Your task to perform on an android device: check the backup settings in the google photos Image 0: 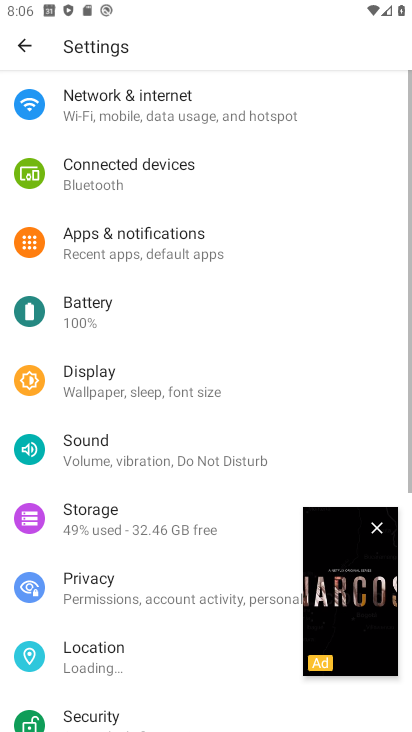
Step 0: click (379, 534)
Your task to perform on an android device: check the backup settings in the google photos Image 1: 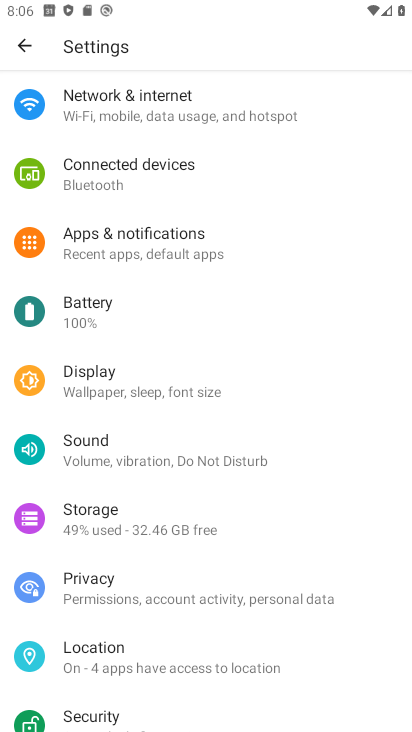
Step 1: press home button
Your task to perform on an android device: check the backup settings in the google photos Image 2: 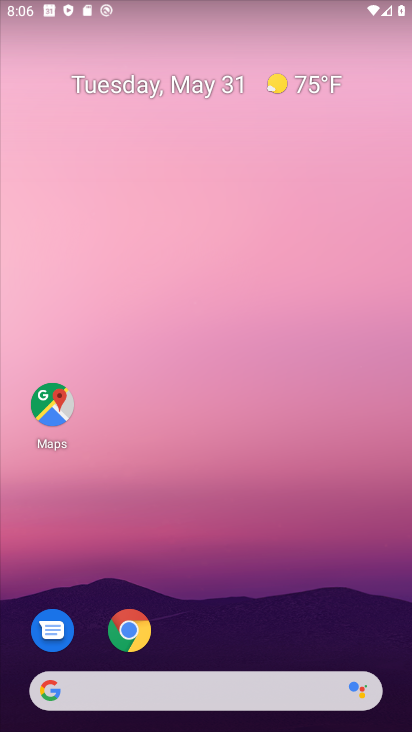
Step 2: drag from (188, 612) to (241, 193)
Your task to perform on an android device: check the backup settings in the google photos Image 3: 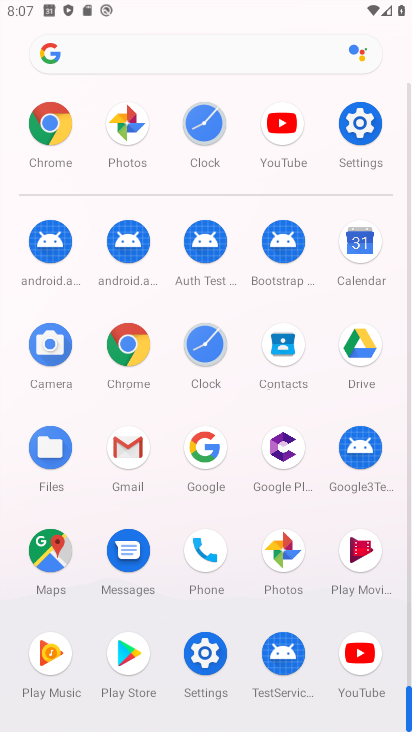
Step 3: click (292, 566)
Your task to perform on an android device: check the backup settings in the google photos Image 4: 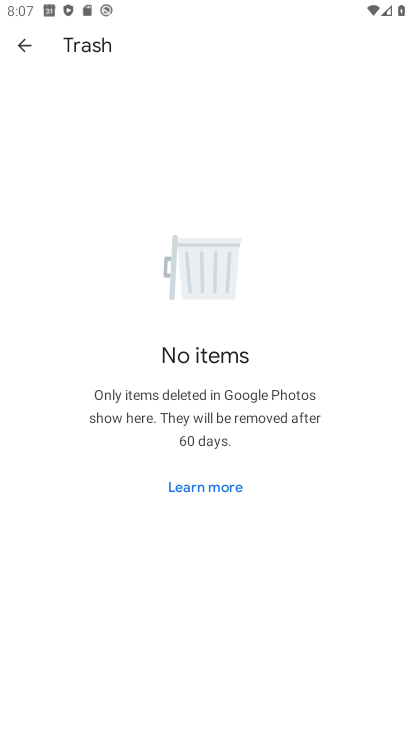
Step 4: click (27, 49)
Your task to perform on an android device: check the backup settings in the google photos Image 5: 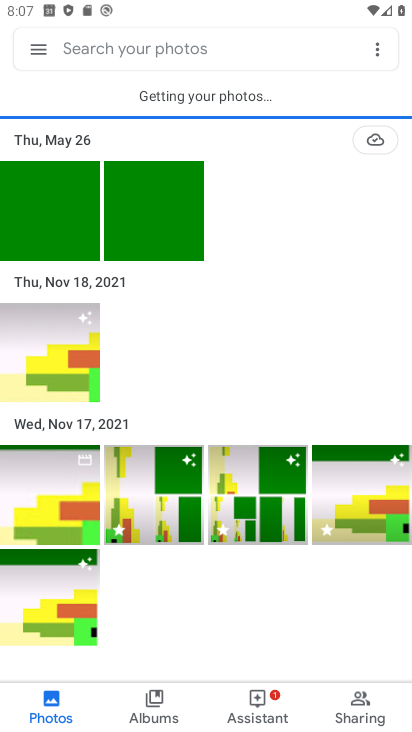
Step 5: click (30, 49)
Your task to perform on an android device: check the backup settings in the google photos Image 6: 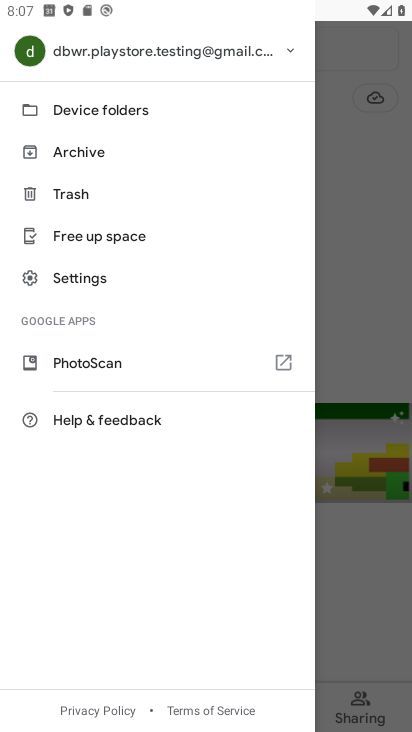
Step 6: click (83, 270)
Your task to perform on an android device: check the backup settings in the google photos Image 7: 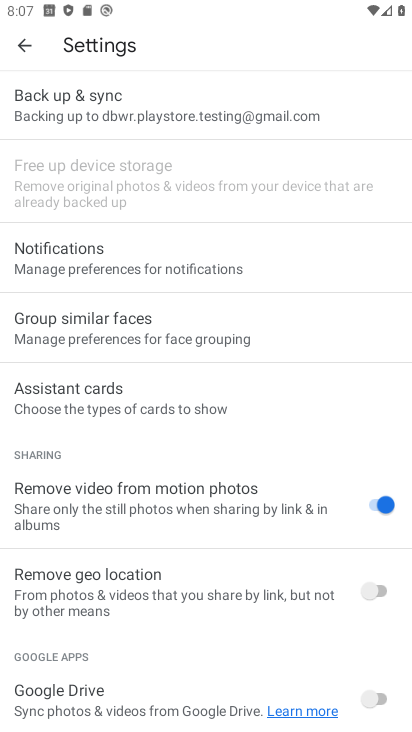
Step 7: click (137, 106)
Your task to perform on an android device: check the backup settings in the google photos Image 8: 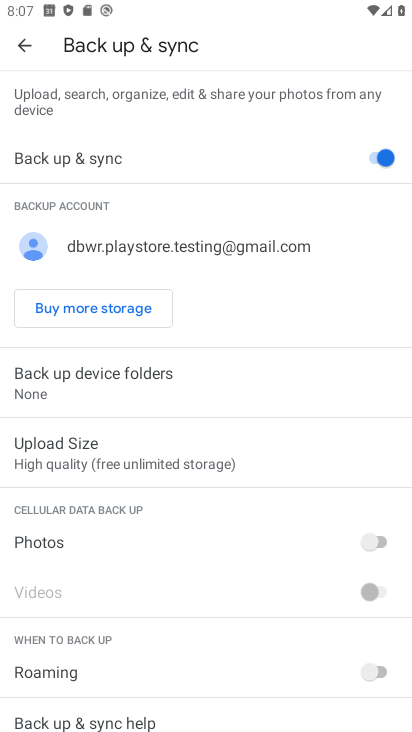
Step 8: task complete